Your task to perform on an android device: turn on bluetooth scan Image 0: 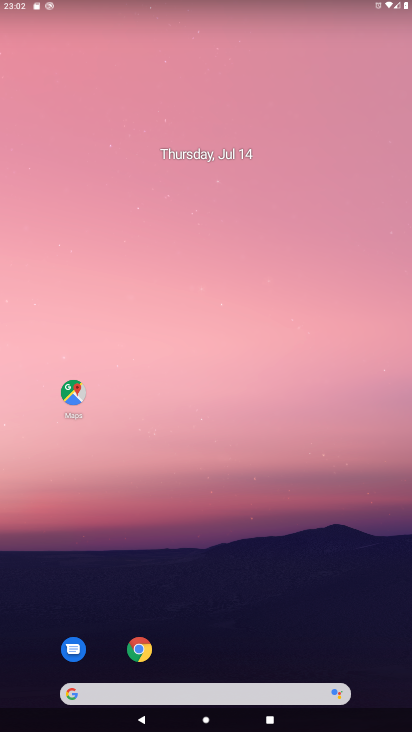
Step 0: drag from (177, 619) to (358, 24)
Your task to perform on an android device: turn on bluetooth scan Image 1: 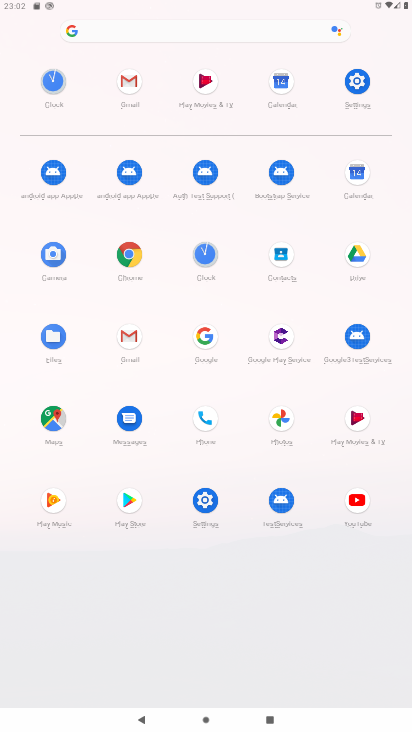
Step 1: click (357, 79)
Your task to perform on an android device: turn on bluetooth scan Image 2: 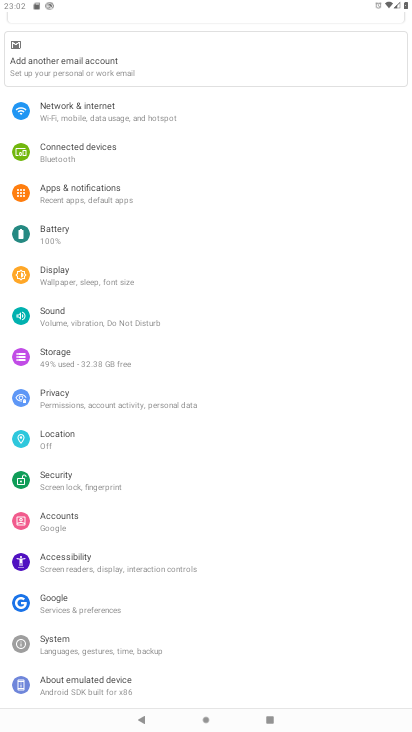
Step 2: click (82, 436)
Your task to perform on an android device: turn on bluetooth scan Image 3: 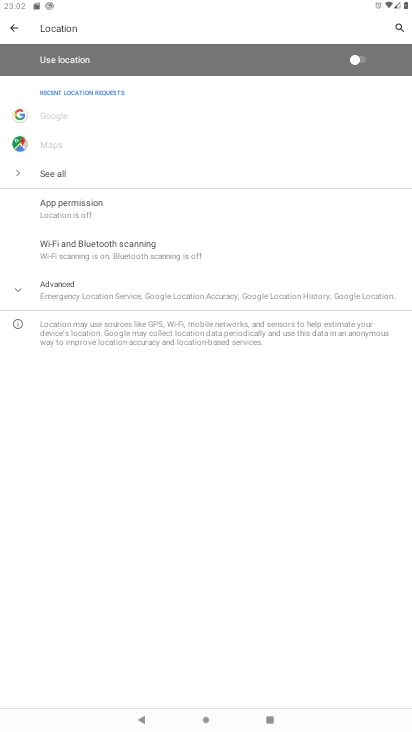
Step 3: click (158, 254)
Your task to perform on an android device: turn on bluetooth scan Image 4: 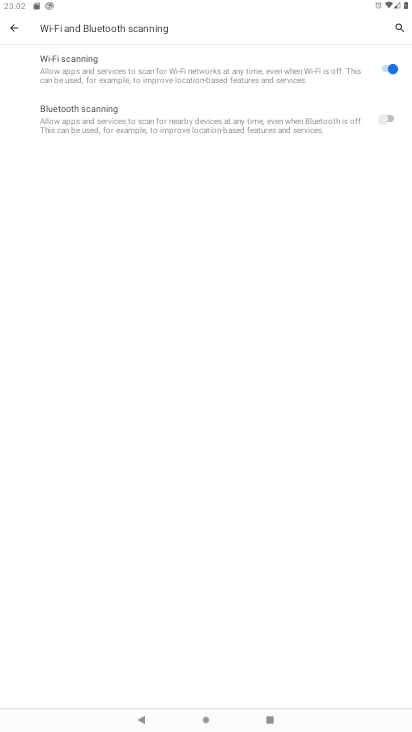
Step 4: click (393, 114)
Your task to perform on an android device: turn on bluetooth scan Image 5: 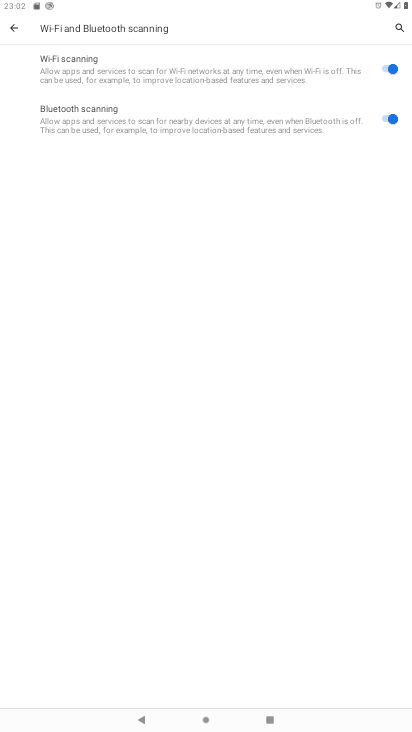
Step 5: task complete